Your task to perform on an android device: star an email in the gmail app Image 0: 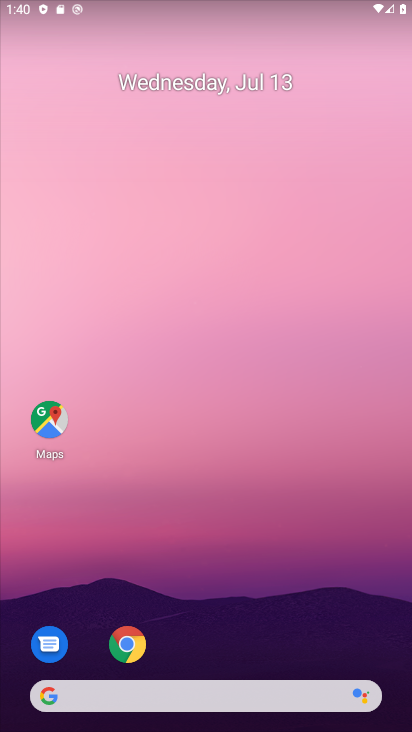
Step 0: drag from (220, 683) to (292, 90)
Your task to perform on an android device: star an email in the gmail app Image 1: 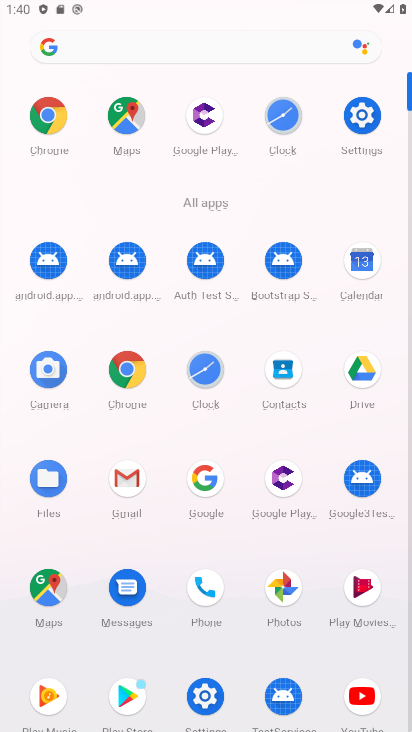
Step 1: click (142, 467)
Your task to perform on an android device: star an email in the gmail app Image 2: 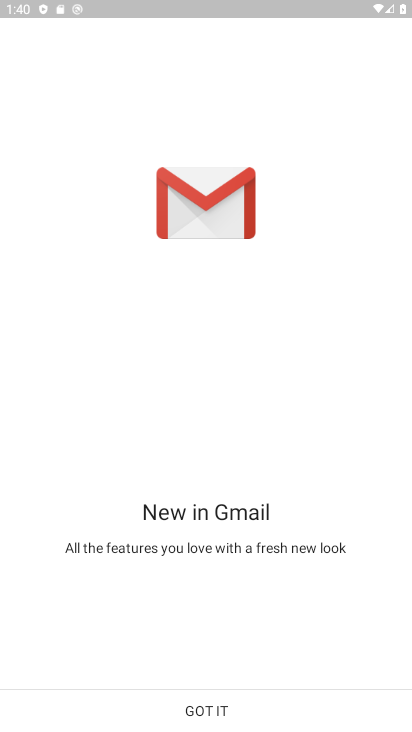
Step 2: click (187, 708)
Your task to perform on an android device: star an email in the gmail app Image 3: 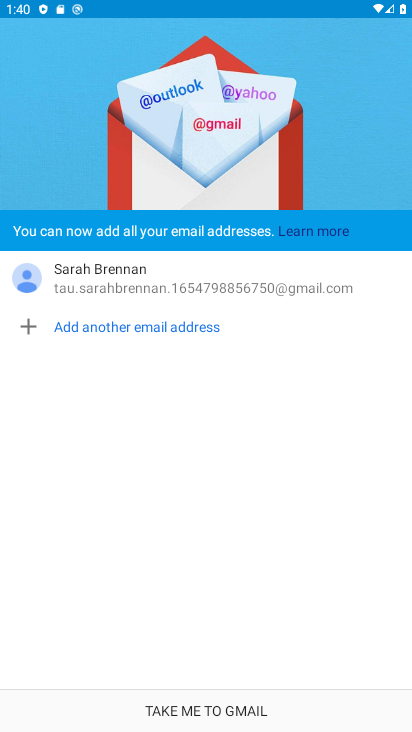
Step 3: click (217, 711)
Your task to perform on an android device: star an email in the gmail app Image 4: 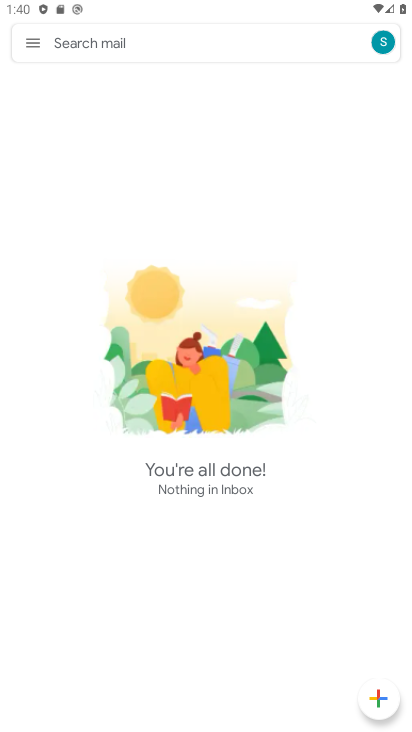
Step 4: task complete